Your task to perform on an android device: star an email in the gmail app Image 0: 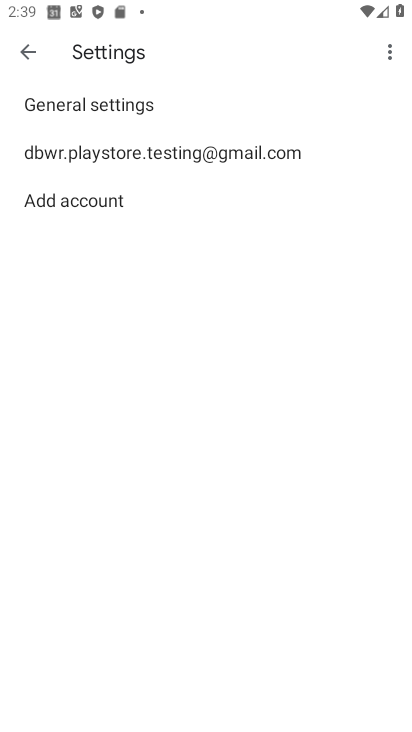
Step 0: click (34, 59)
Your task to perform on an android device: star an email in the gmail app Image 1: 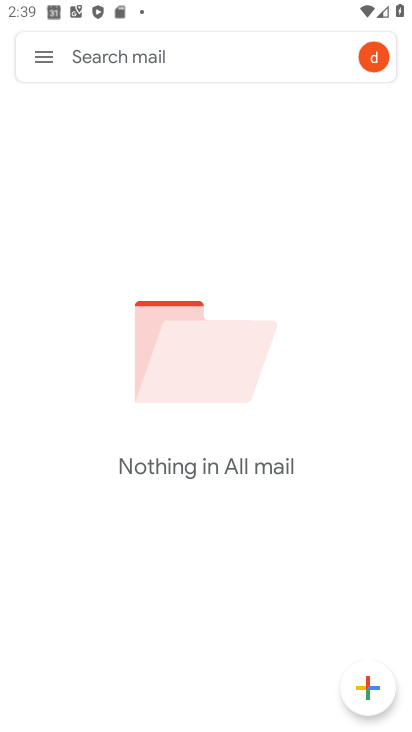
Step 1: task complete